Your task to perform on an android device: Open the stopwatch Image 0: 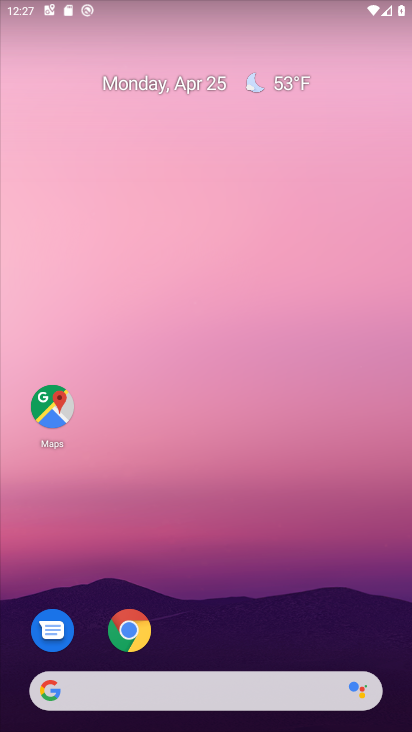
Step 0: drag from (197, 615) to (238, 90)
Your task to perform on an android device: Open the stopwatch Image 1: 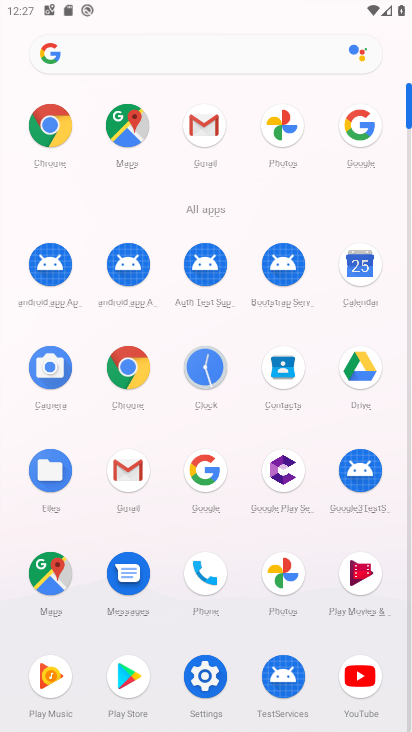
Step 1: click (205, 376)
Your task to perform on an android device: Open the stopwatch Image 2: 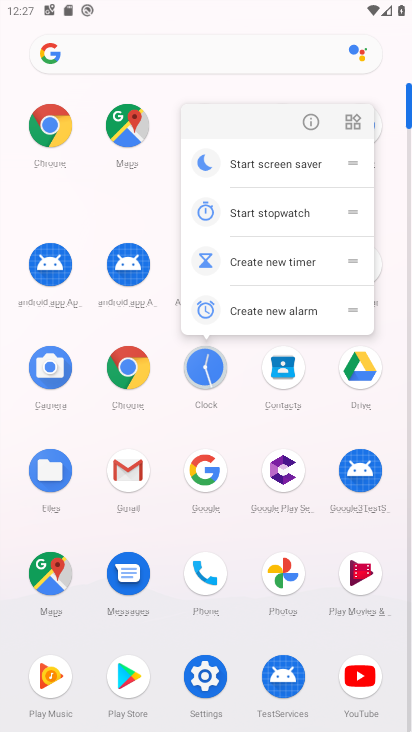
Step 2: click (309, 119)
Your task to perform on an android device: Open the stopwatch Image 3: 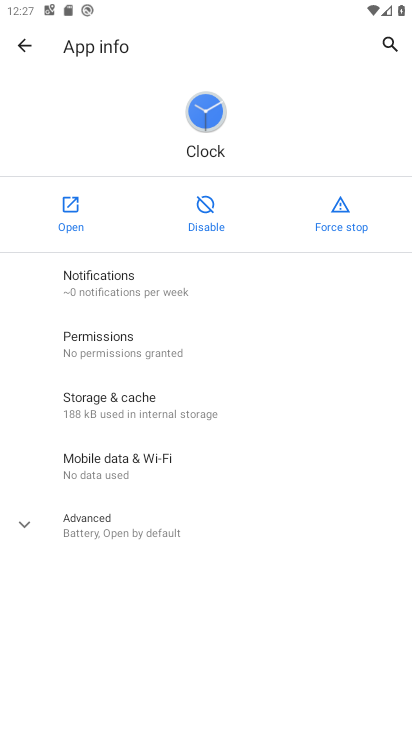
Step 3: click (53, 214)
Your task to perform on an android device: Open the stopwatch Image 4: 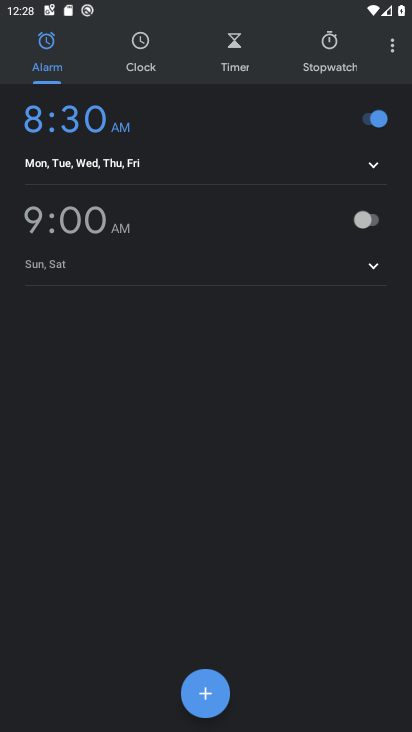
Step 4: click (327, 55)
Your task to perform on an android device: Open the stopwatch Image 5: 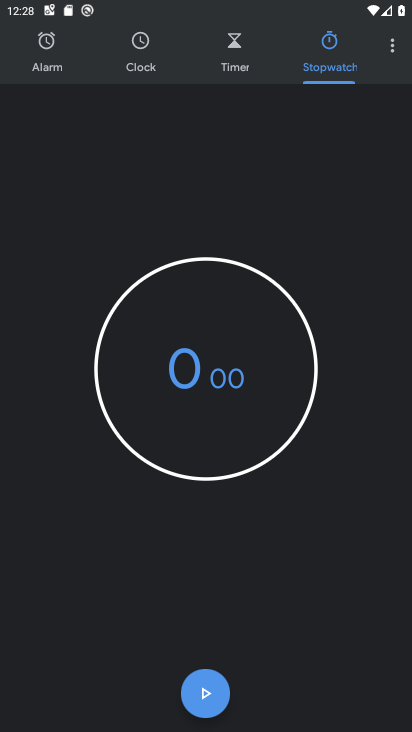
Step 5: click (192, 698)
Your task to perform on an android device: Open the stopwatch Image 6: 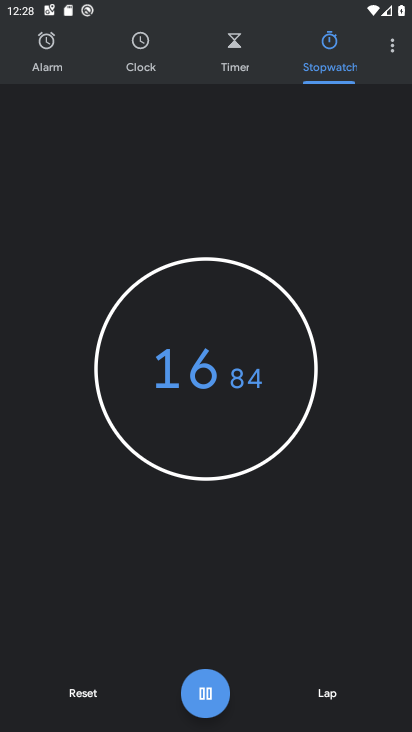
Step 6: task complete